Your task to perform on an android device: What's the weather? Image 0: 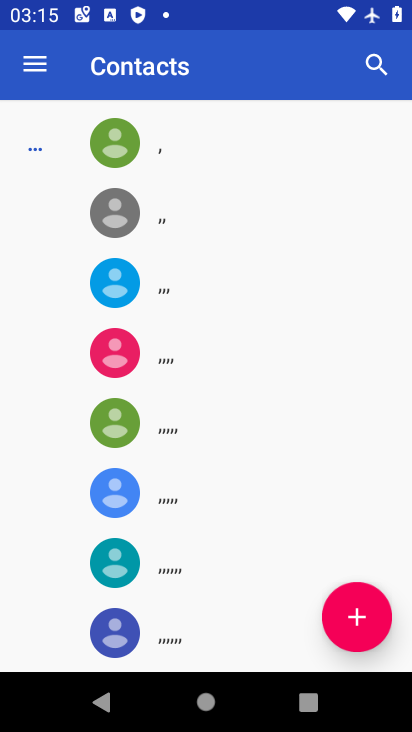
Step 0: press home button
Your task to perform on an android device: What's the weather? Image 1: 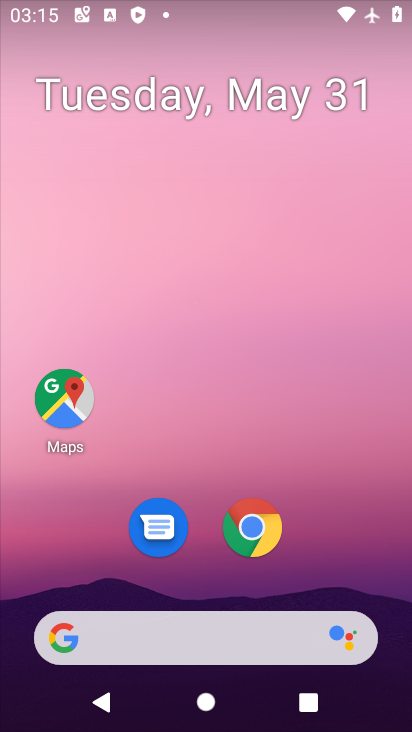
Step 1: drag from (7, 254) to (410, 266)
Your task to perform on an android device: What's the weather? Image 2: 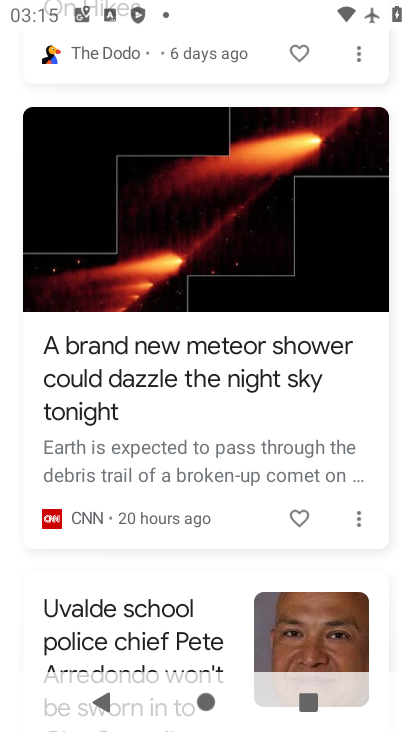
Step 2: drag from (236, 130) to (223, 464)
Your task to perform on an android device: What's the weather? Image 3: 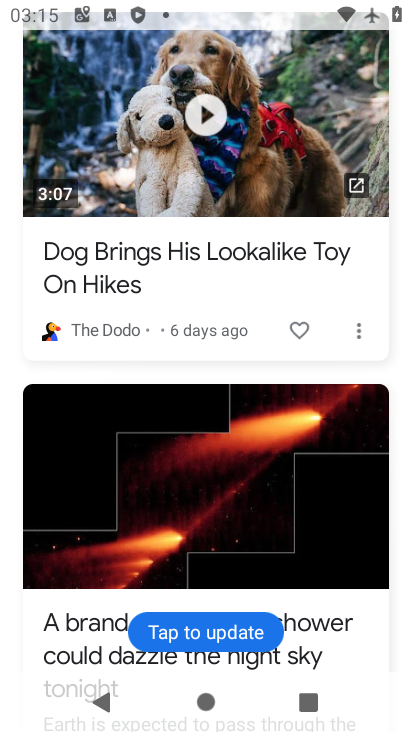
Step 3: drag from (220, 200) to (195, 538)
Your task to perform on an android device: What's the weather? Image 4: 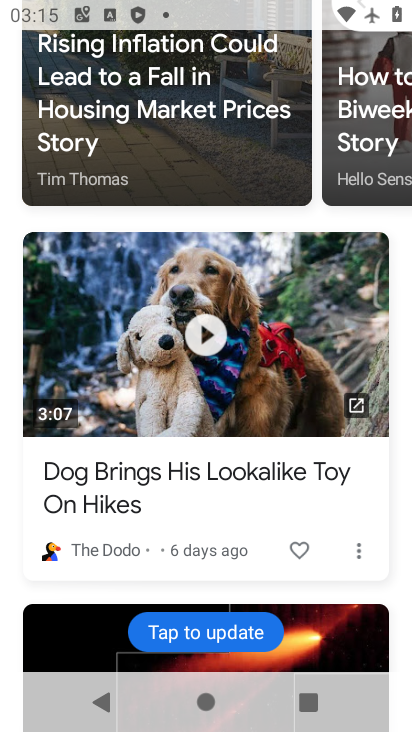
Step 4: drag from (224, 167) to (263, 496)
Your task to perform on an android device: What's the weather? Image 5: 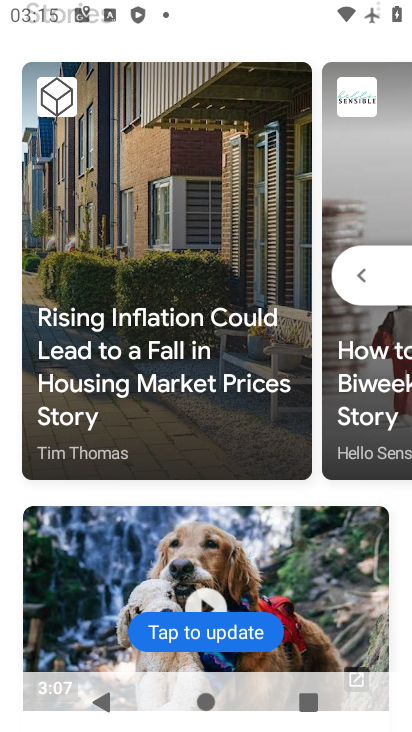
Step 5: drag from (276, 208) to (253, 486)
Your task to perform on an android device: What's the weather? Image 6: 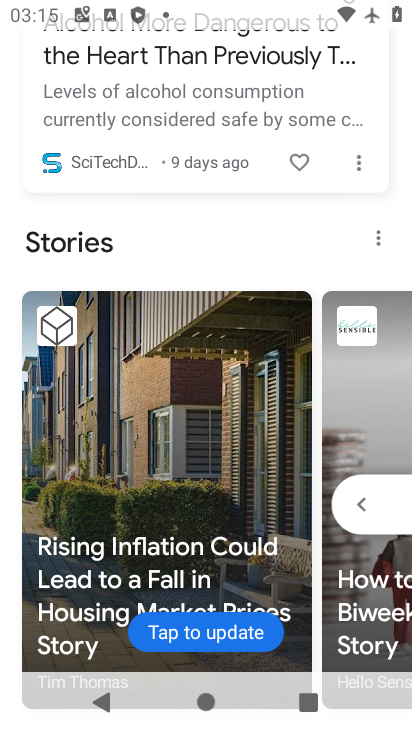
Step 6: drag from (256, 138) to (247, 451)
Your task to perform on an android device: What's the weather? Image 7: 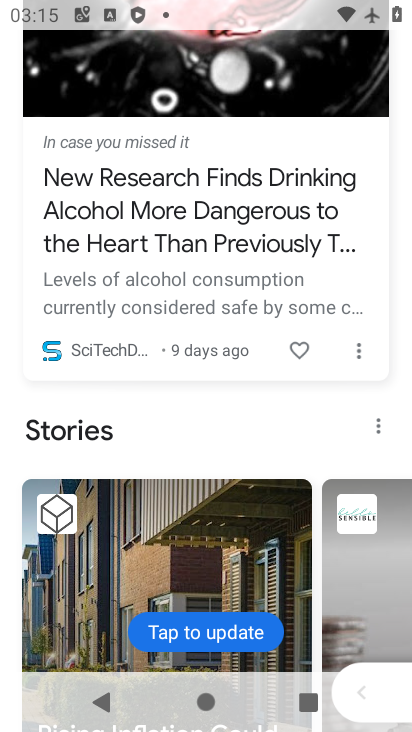
Step 7: drag from (235, 144) to (241, 504)
Your task to perform on an android device: What's the weather? Image 8: 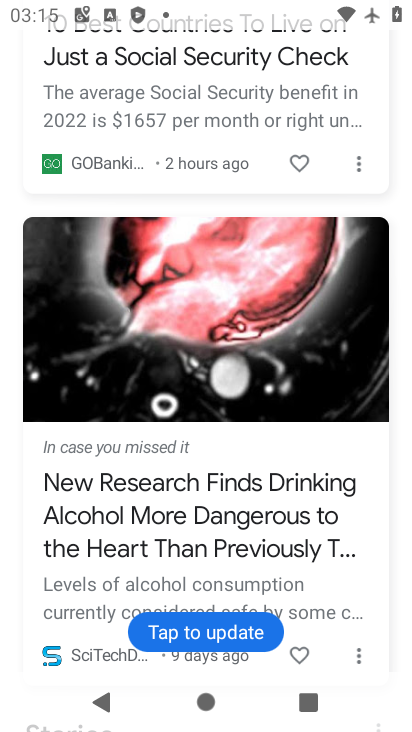
Step 8: drag from (254, 205) to (244, 548)
Your task to perform on an android device: What's the weather? Image 9: 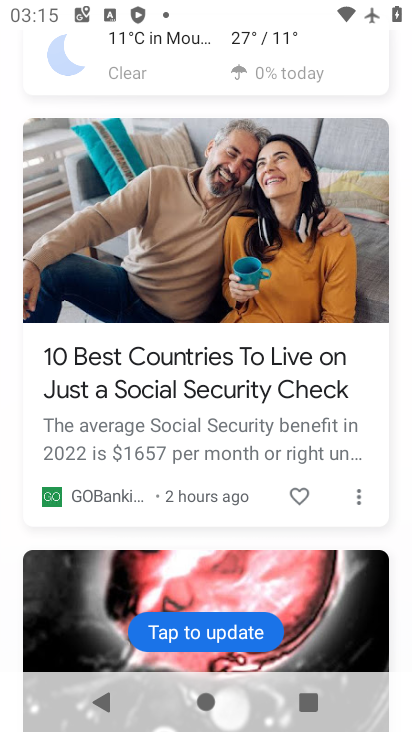
Step 9: click (188, 636)
Your task to perform on an android device: What's the weather? Image 10: 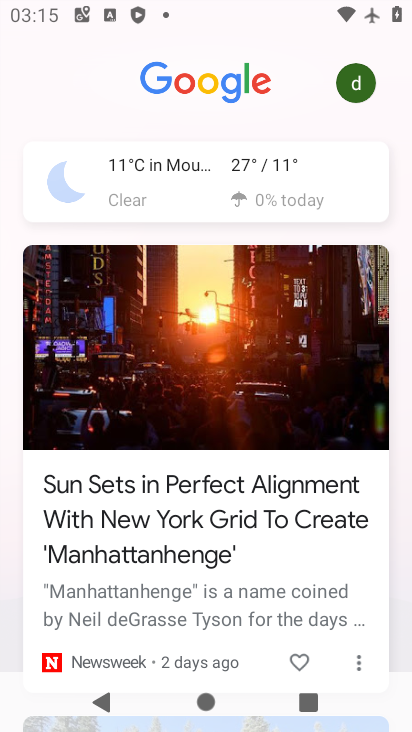
Step 10: click (269, 158)
Your task to perform on an android device: What's the weather? Image 11: 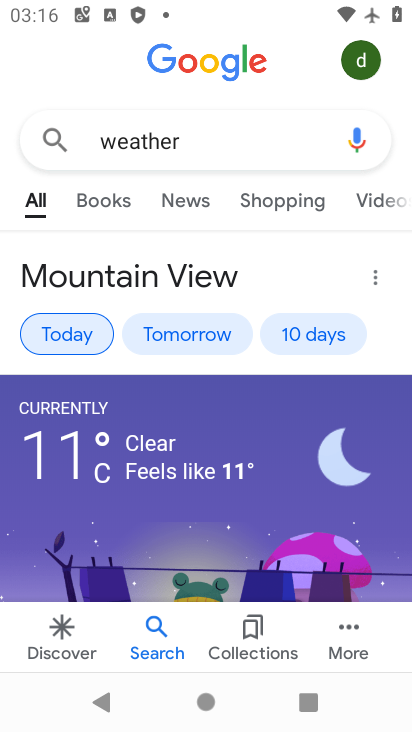
Step 11: task complete